Your task to perform on an android device: Open my contact list Image 0: 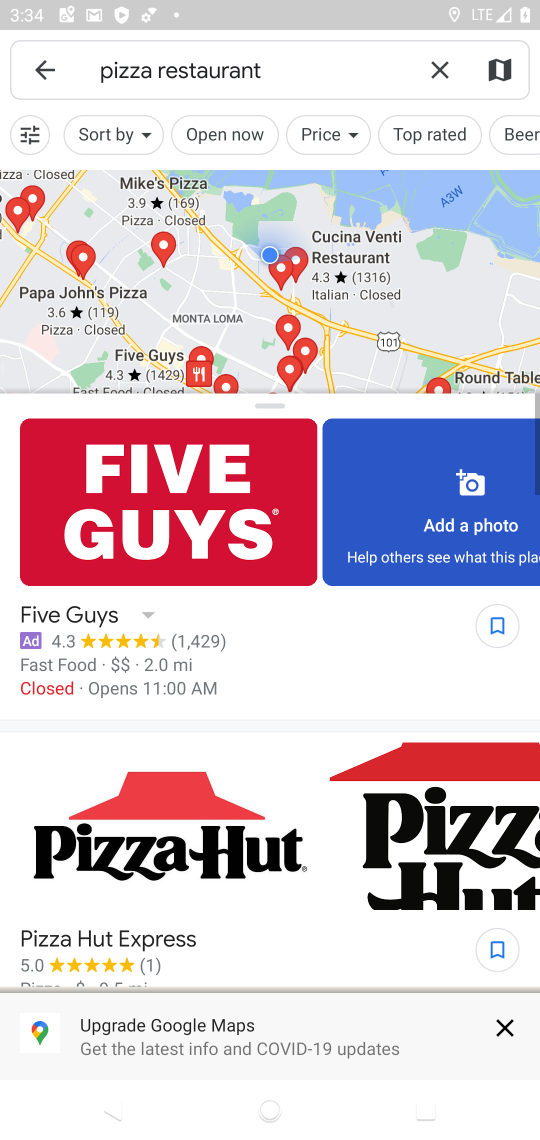
Step 0: press home button
Your task to perform on an android device: Open my contact list Image 1: 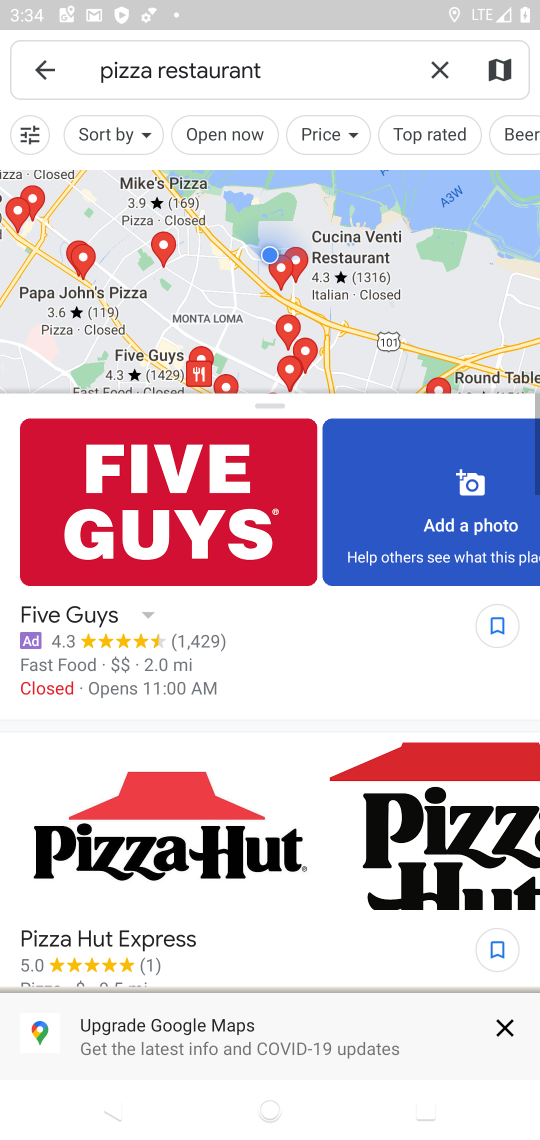
Step 1: press home button
Your task to perform on an android device: Open my contact list Image 2: 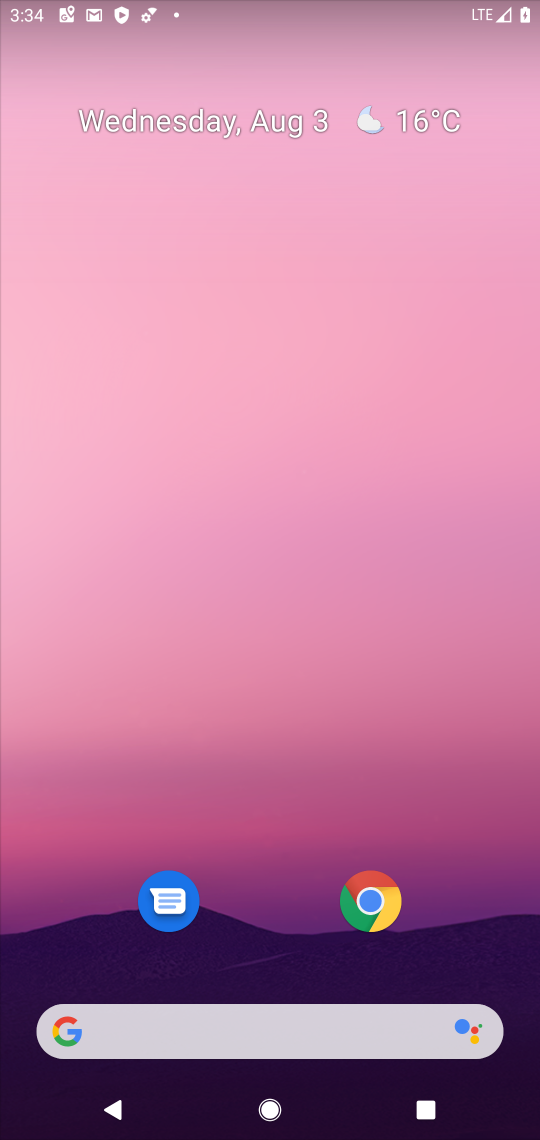
Step 2: drag from (265, 1048) to (324, 384)
Your task to perform on an android device: Open my contact list Image 3: 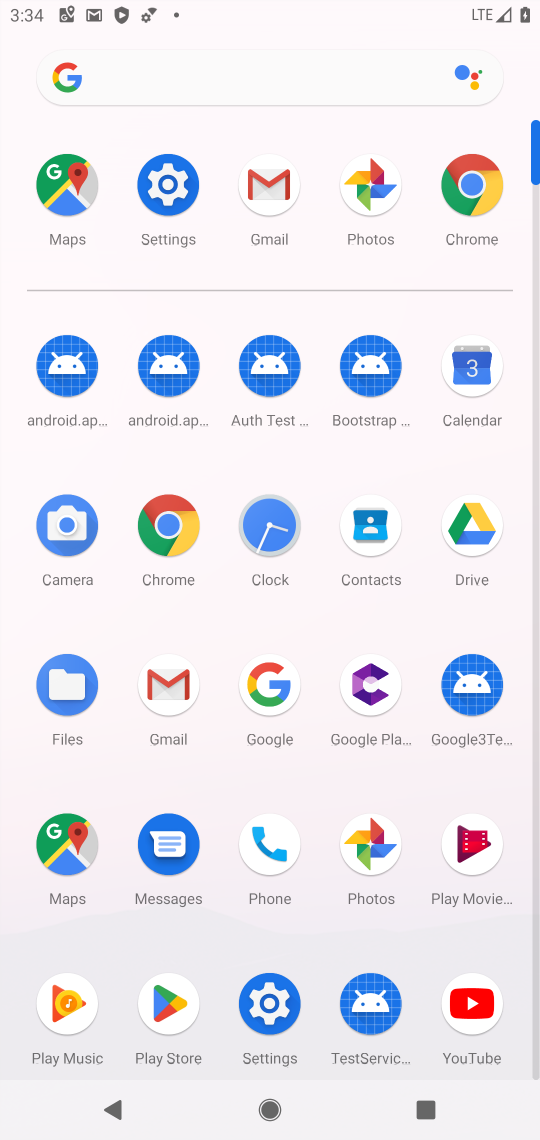
Step 3: click (283, 865)
Your task to perform on an android device: Open my contact list Image 4: 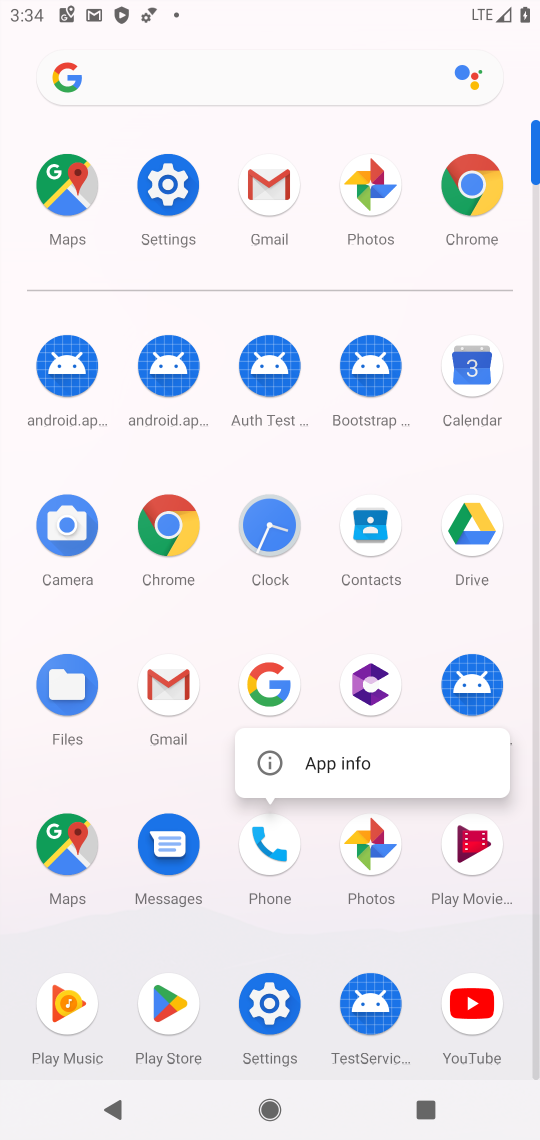
Step 4: click (280, 837)
Your task to perform on an android device: Open my contact list Image 5: 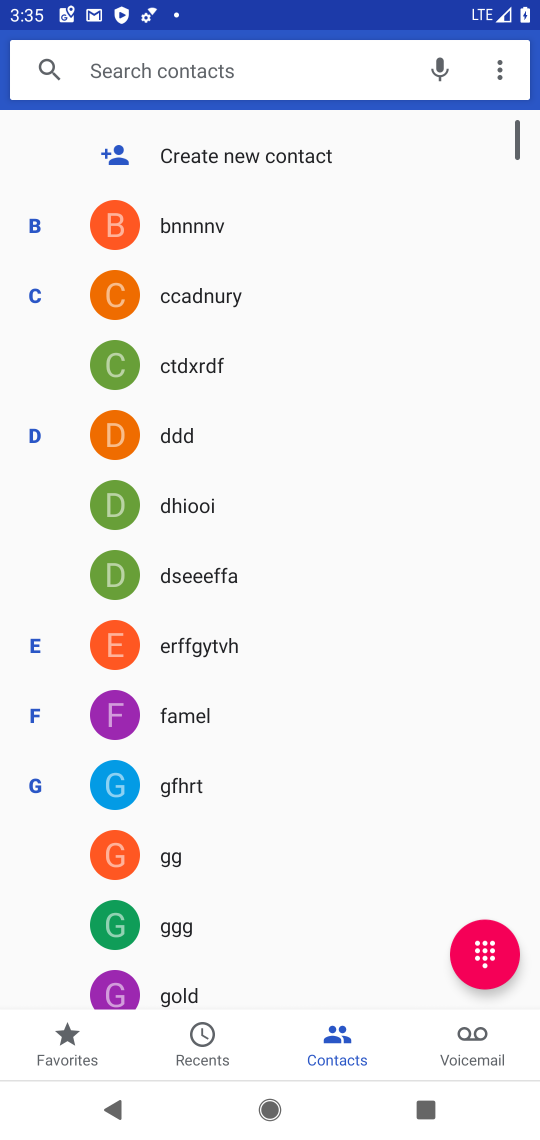
Step 5: task complete